Your task to perform on an android device: turn off data saver in the chrome app Image 0: 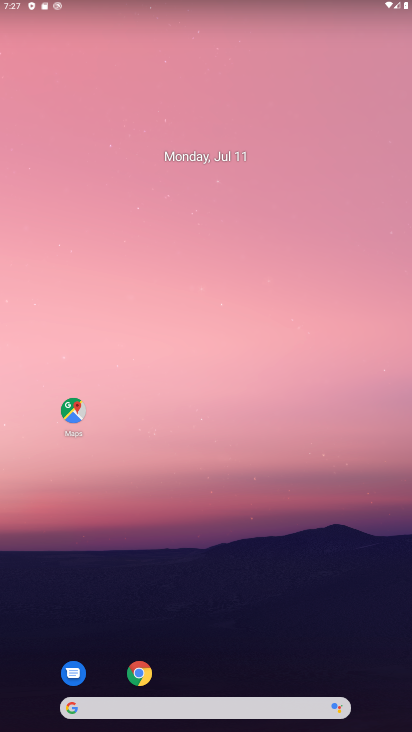
Step 0: click (143, 678)
Your task to perform on an android device: turn off data saver in the chrome app Image 1: 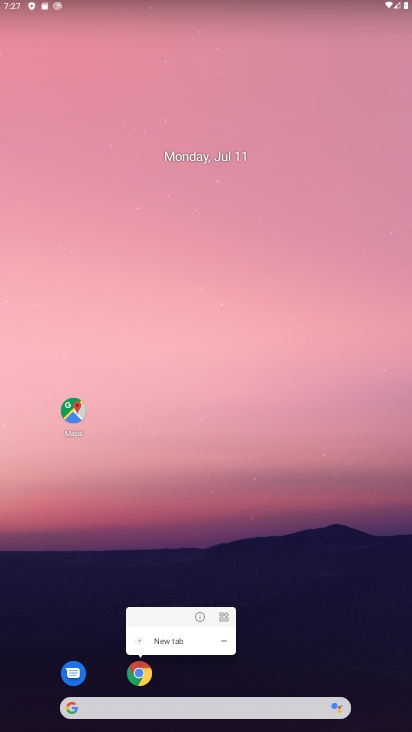
Step 1: click (143, 678)
Your task to perform on an android device: turn off data saver in the chrome app Image 2: 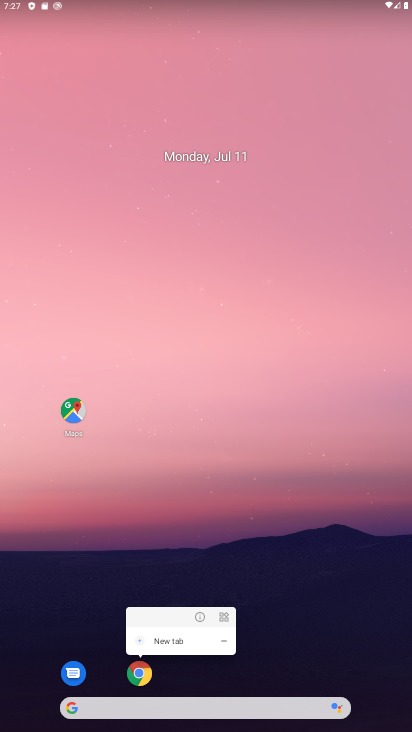
Step 2: click (138, 674)
Your task to perform on an android device: turn off data saver in the chrome app Image 3: 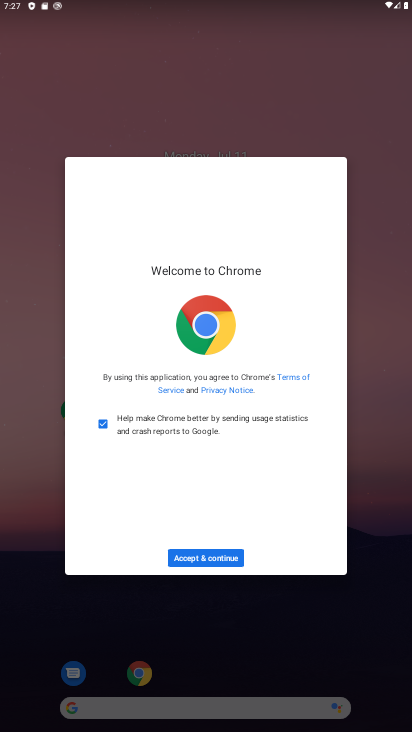
Step 3: click (184, 562)
Your task to perform on an android device: turn off data saver in the chrome app Image 4: 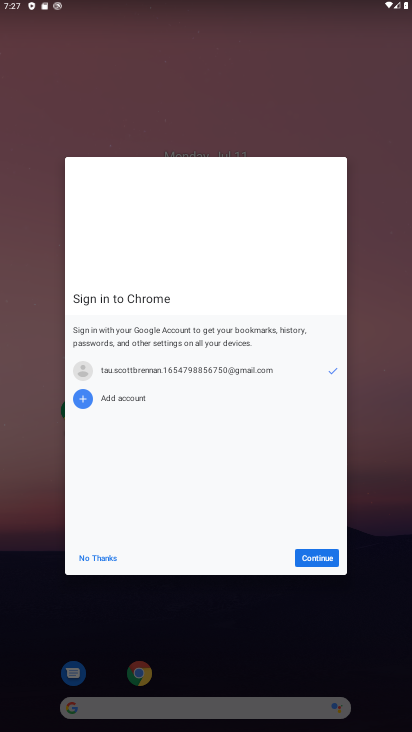
Step 4: click (324, 558)
Your task to perform on an android device: turn off data saver in the chrome app Image 5: 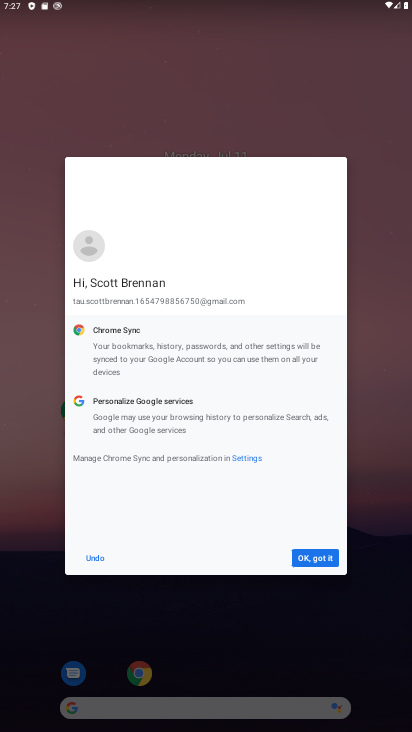
Step 5: click (315, 560)
Your task to perform on an android device: turn off data saver in the chrome app Image 6: 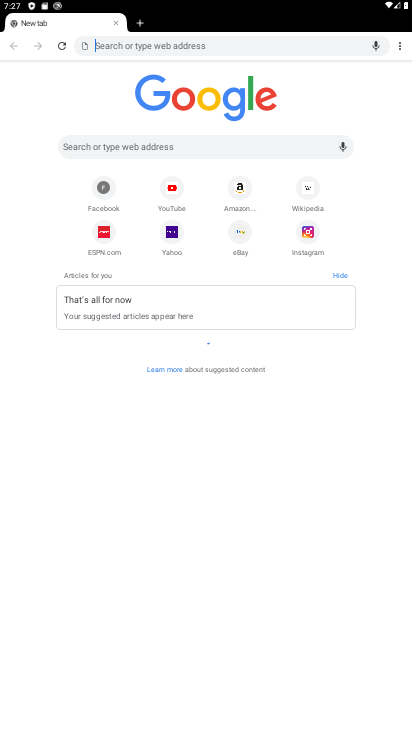
Step 6: click (401, 48)
Your task to perform on an android device: turn off data saver in the chrome app Image 7: 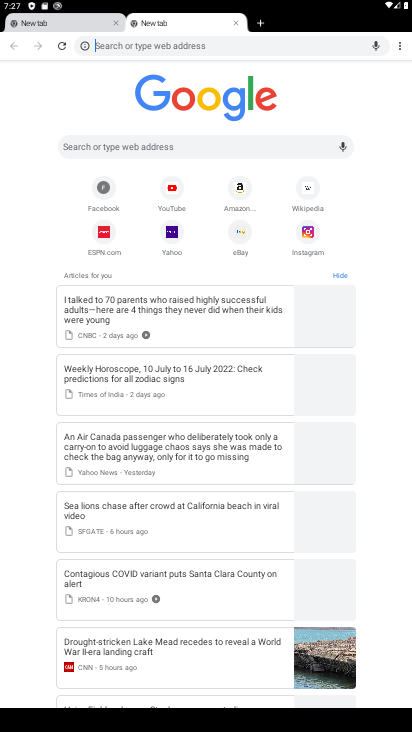
Step 7: click (401, 48)
Your task to perform on an android device: turn off data saver in the chrome app Image 8: 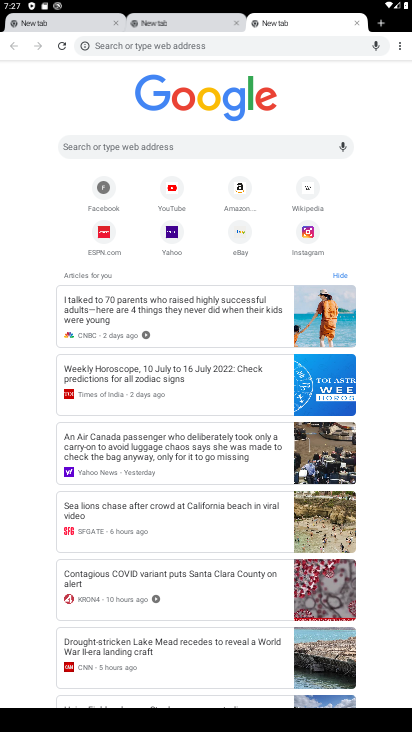
Step 8: click (401, 40)
Your task to perform on an android device: turn off data saver in the chrome app Image 9: 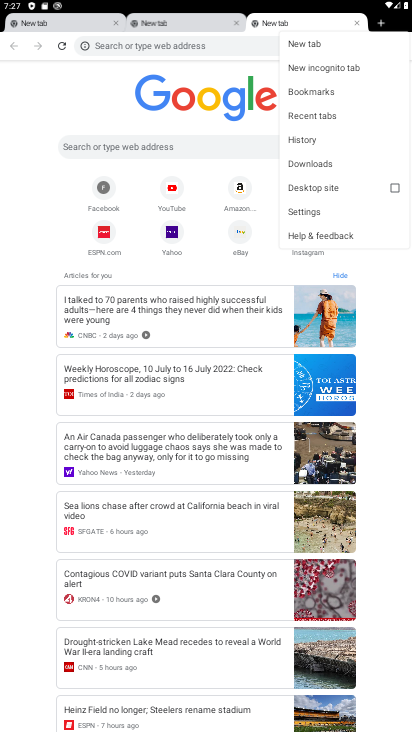
Step 9: click (300, 208)
Your task to perform on an android device: turn off data saver in the chrome app Image 10: 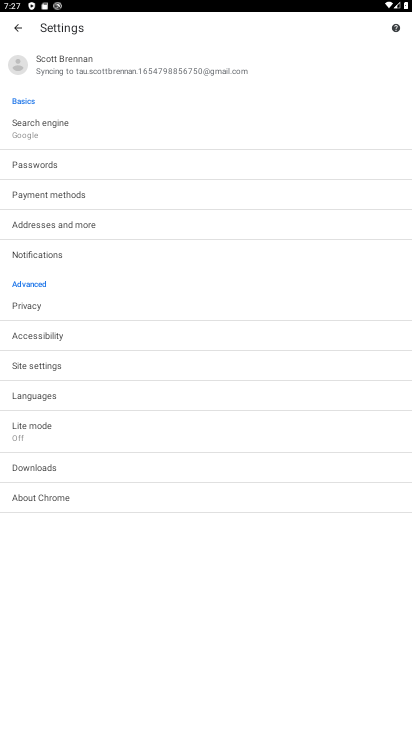
Step 10: click (12, 359)
Your task to perform on an android device: turn off data saver in the chrome app Image 11: 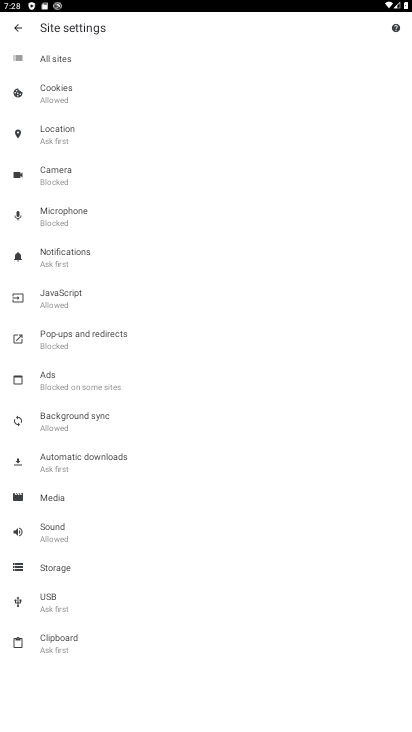
Step 11: click (19, 35)
Your task to perform on an android device: turn off data saver in the chrome app Image 12: 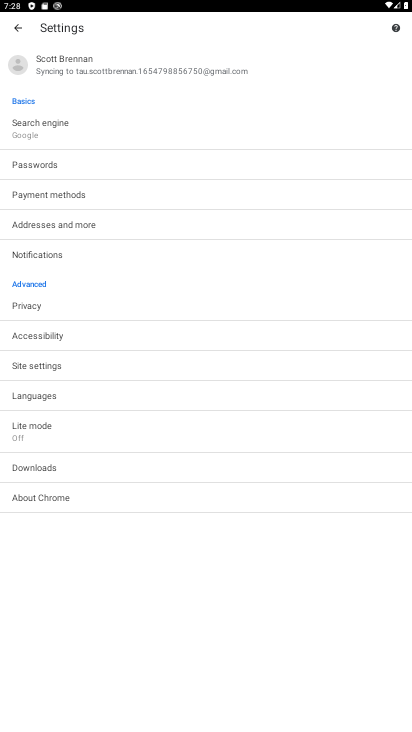
Step 12: click (48, 438)
Your task to perform on an android device: turn off data saver in the chrome app Image 13: 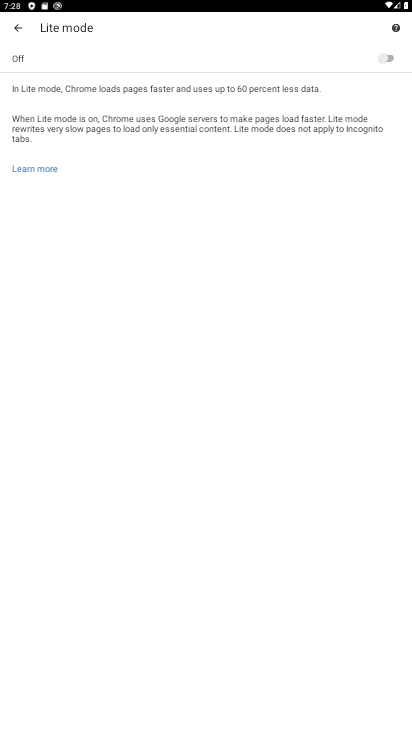
Step 13: task complete